Your task to perform on an android device: Go to accessibility settings Image 0: 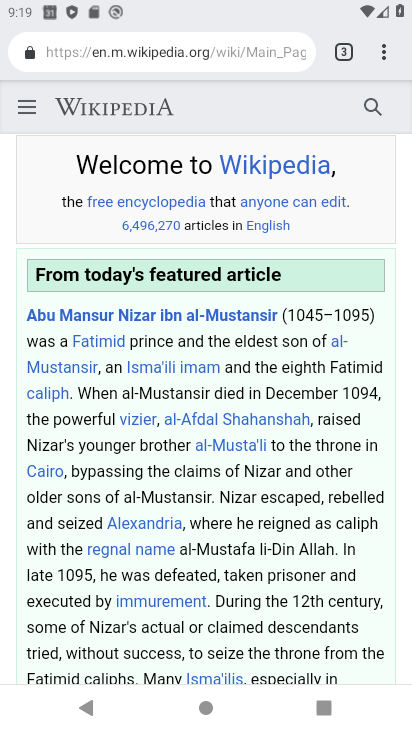
Step 0: press home button
Your task to perform on an android device: Go to accessibility settings Image 1: 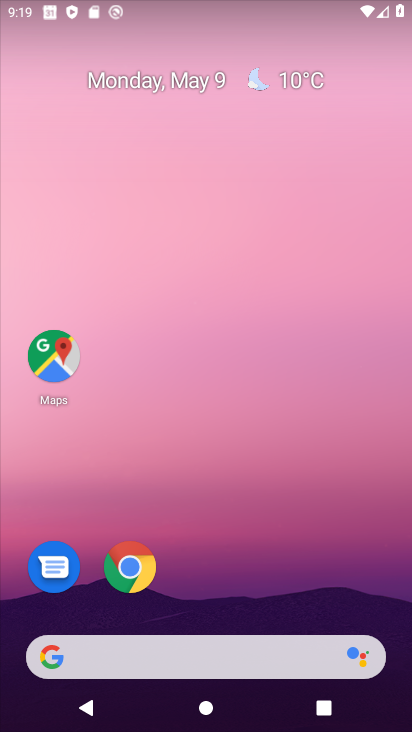
Step 1: drag from (212, 502) to (232, 36)
Your task to perform on an android device: Go to accessibility settings Image 2: 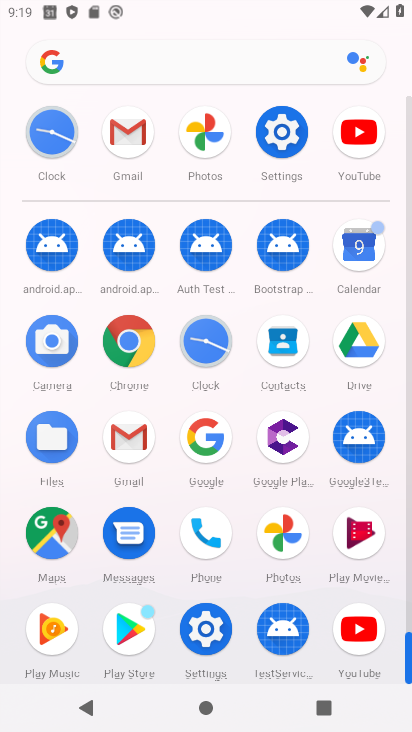
Step 2: click (276, 129)
Your task to perform on an android device: Go to accessibility settings Image 3: 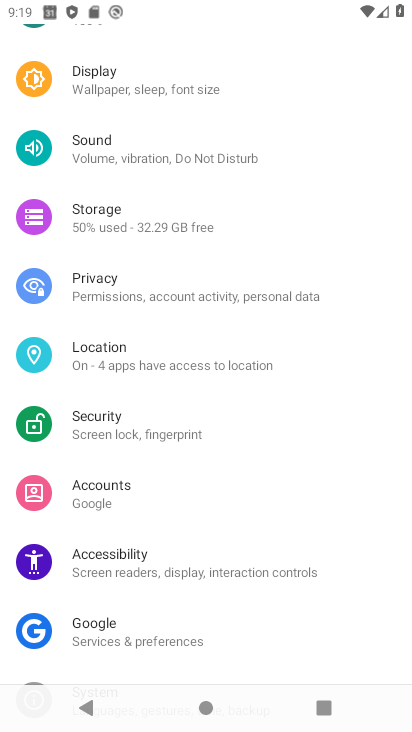
Step 3: click (179, 552)
Your task to perform on an android device: Go to accessibility settings Image 4: 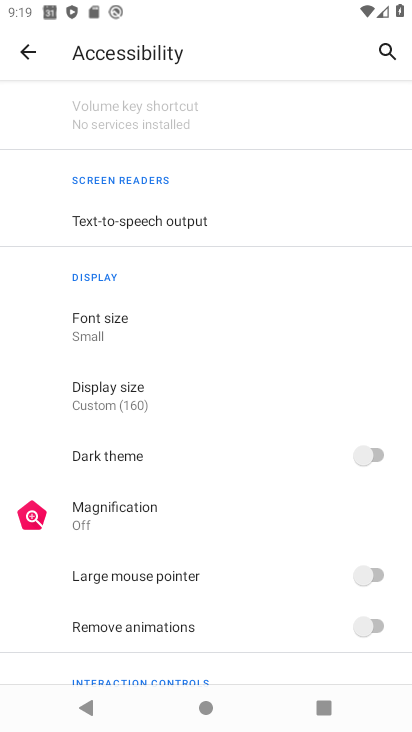
Step 4: task complete